Your task to perform on an android device: Go to Wikipedia Image 0: 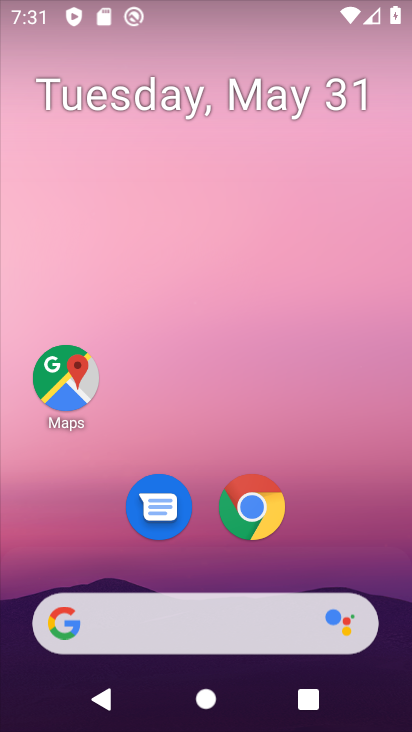
Step 0: click (251, 505)
Your task to perform on an android device: Go to Wikipedia Image 1: 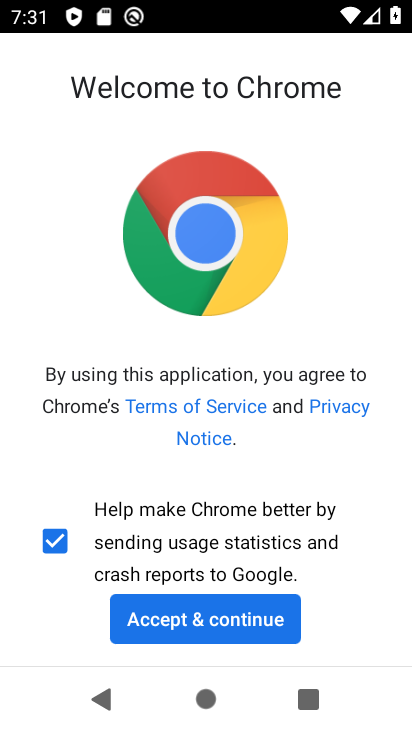
Step 1: click (255, 633)
Your task to perform on an android device: Go to Wikipedia Image 2: 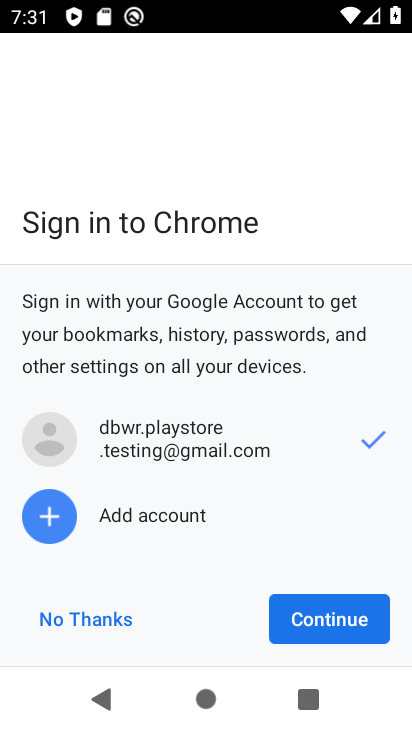
Step 2: click (301, 634)
Your task to perform on an android device: Go to Wikipedia Image 3: 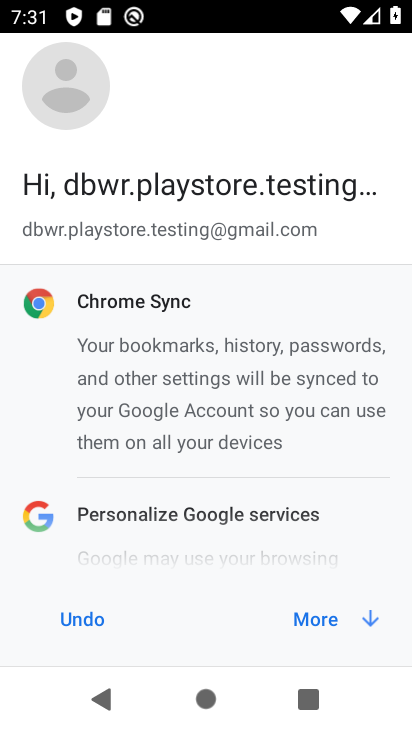
Step 3: click (308, 615)
Your task to perform on an android device: Go to Wikipedia Image 4: 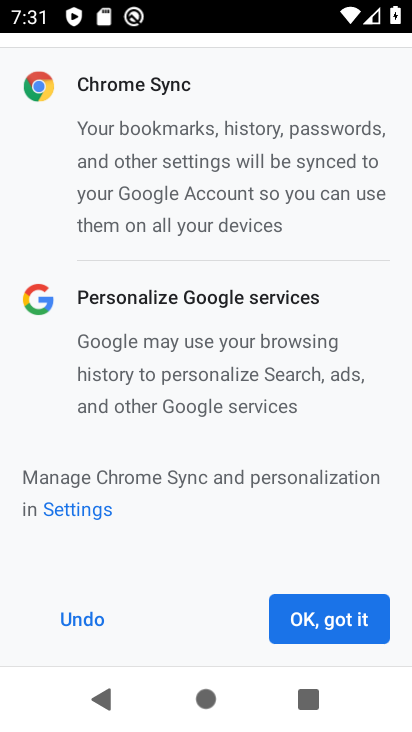
Step 4: click (302, 612)
Your task to perform on an android device: Go to Wikipedia Image 5: 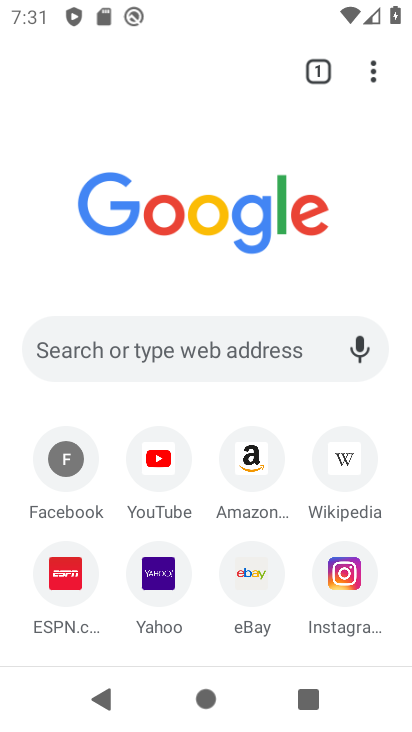
Step 5: click (342, 461)
Your task to perform on an android device: Go to Wikipedia Image 6: 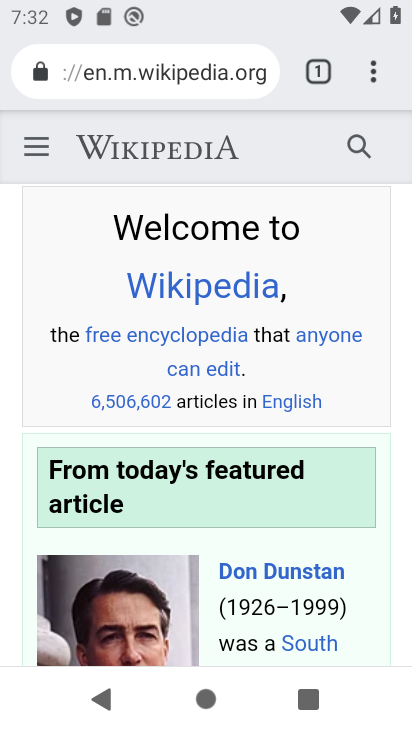
Step 6: task complete